Your task to perform on an android device: turn on airplane mode Image 0: 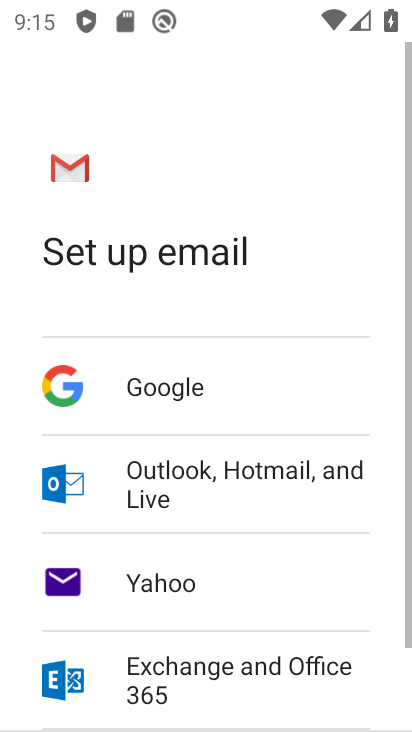
Step 0: press home button
Your task to perform on an android device: turn on airplane mode Image 1: 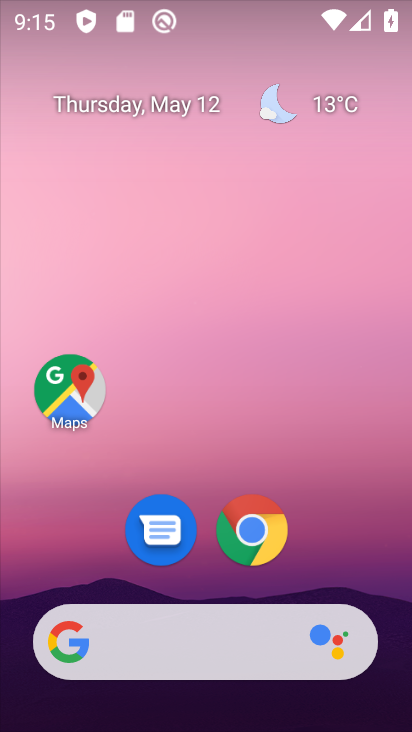
Step 1: drag from (222, 362) to (273, 141)
Your task to perform on an android device: turn on airplane mode Image 2: 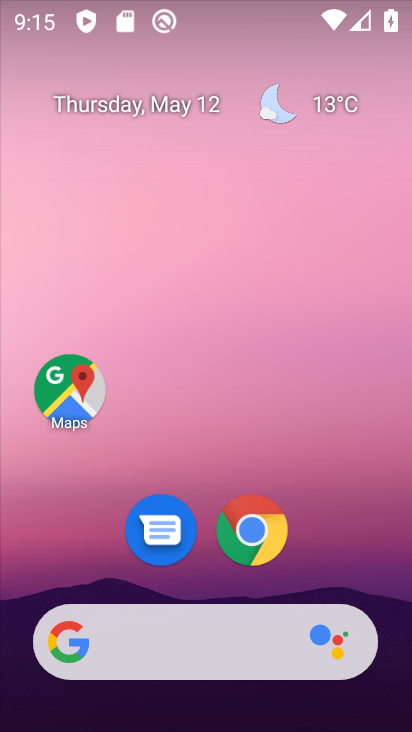
Step 2: drag from (319, 537) to (410, 41)
Your task to perform on an android device: turn on airplane mode Image 3: 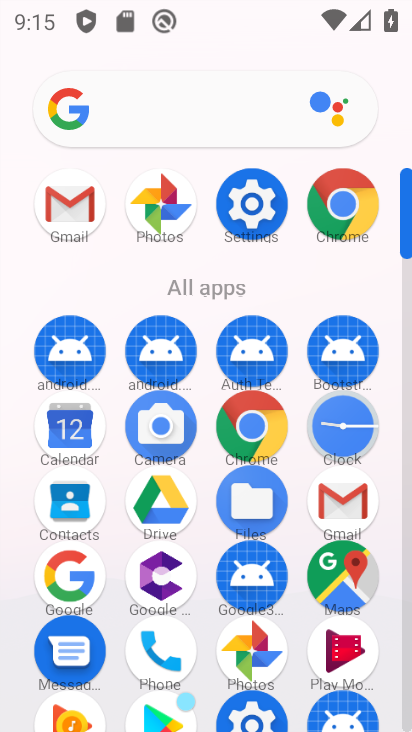
Step 3: click (222, 202)
Your task to perform on an android device: turn on airplane mode Image 4: 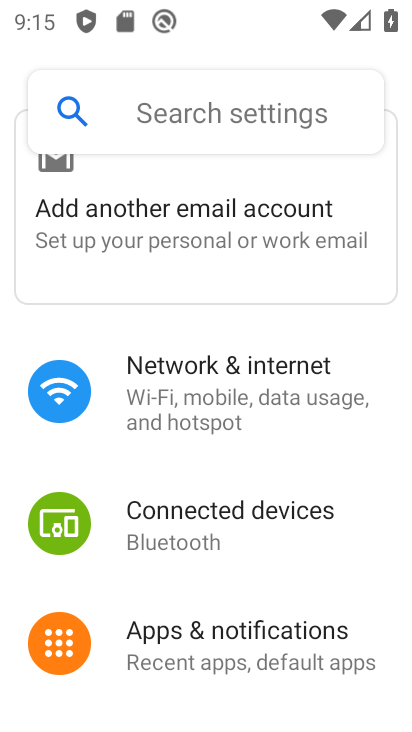
Step 4: click (221, 391)
Your task to perform on an android device: turn on airplane mode Image 5: 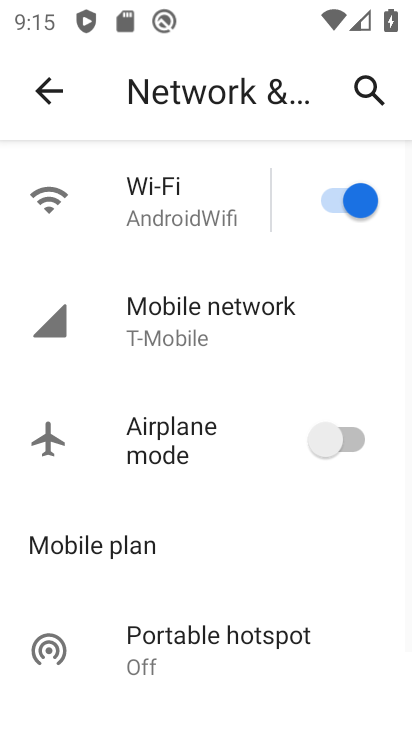
Step 5: click (319, 441)
Your task to perform on an android device: turn on airplane mode Image 6: 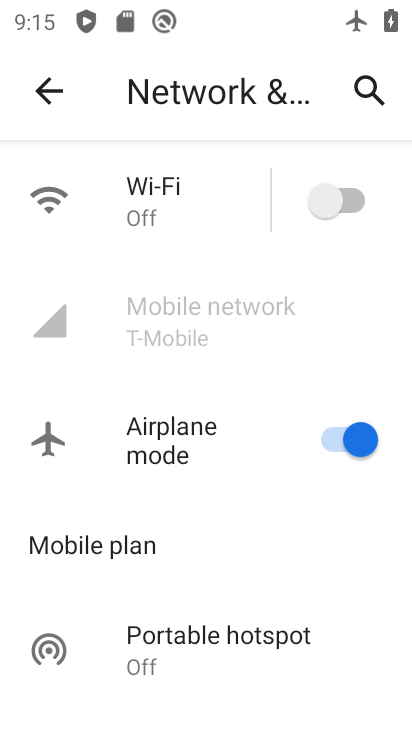
Step 6: task complete